Your task to perform on an android device: delete browsing data in the chrome app Image 0: 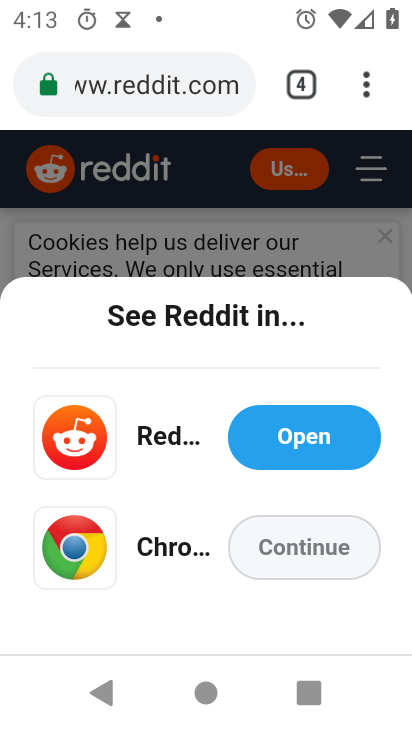
Step 0: click (353, 101)
Your task to perform on an android device: delete browsing data in the chrome app Image 1: 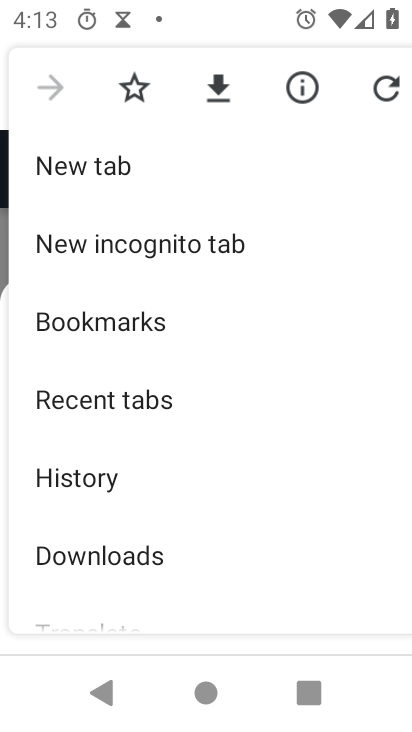
Step 1: click (157, 478)
Your task to perform on an android device: delete browsing data in the chrome app Image 2: 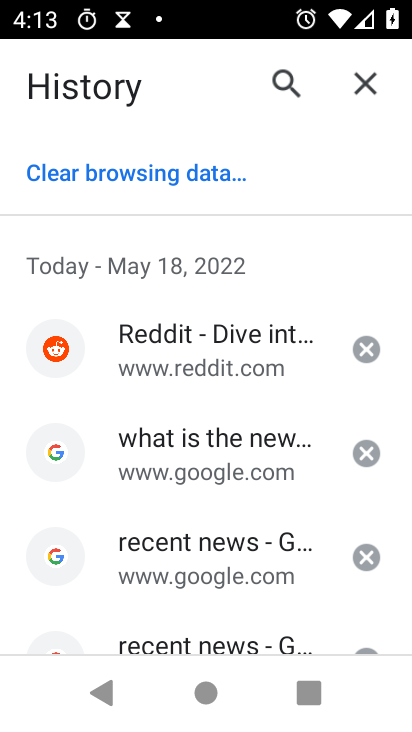
Step 2: click (157, 164)
Your task to perform on an android device: delete browsing data in the chrome app Image 3: 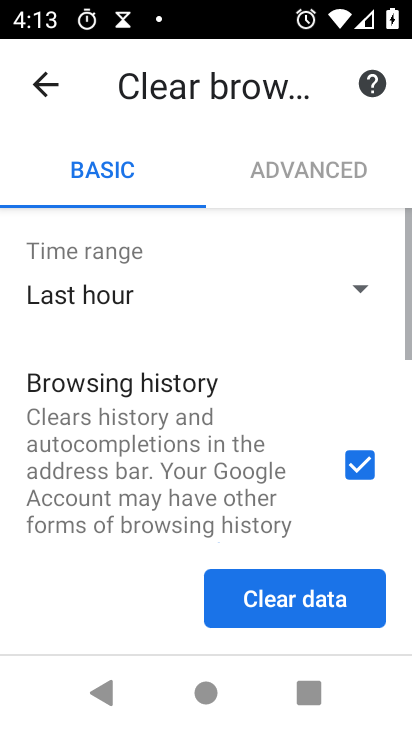
Step 3: click (287, 609)
Your task to perform on an android device: delete browsing data in the chrome app Image 4: 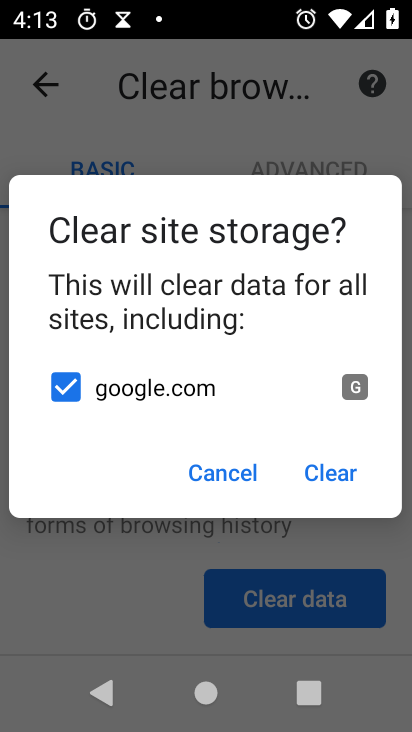
Step 4: task complete